Your task to perform on an android device: Search for hotels in Seattle Image 0: 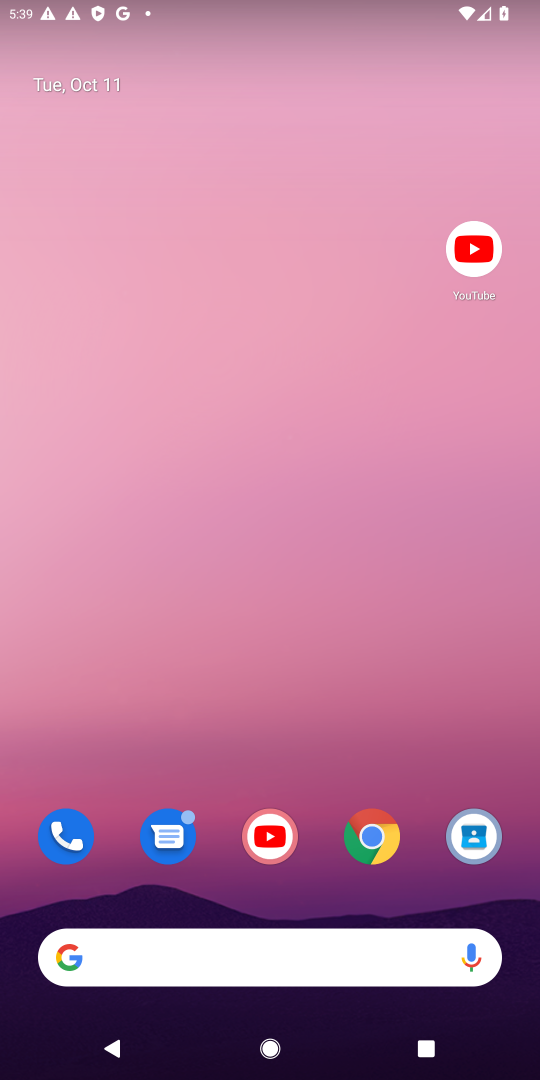
Step 0: click (366, 836)
Your task to perform on an android device: Search for hotels in Seattle Image 1: 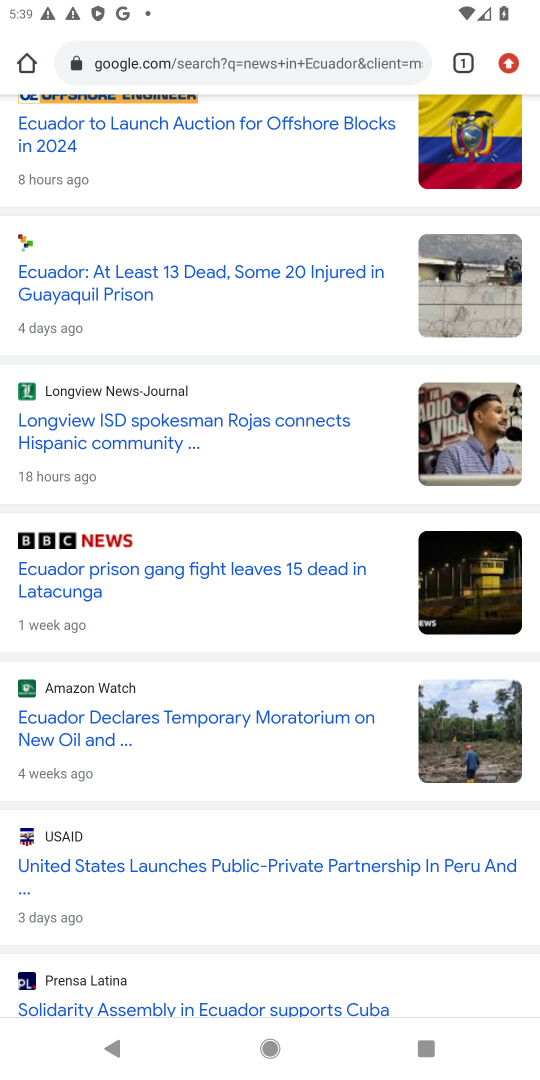
Step 1: click (171, 59)
Your task to perform on an android device: Search for hotels in Seattle Image 2: 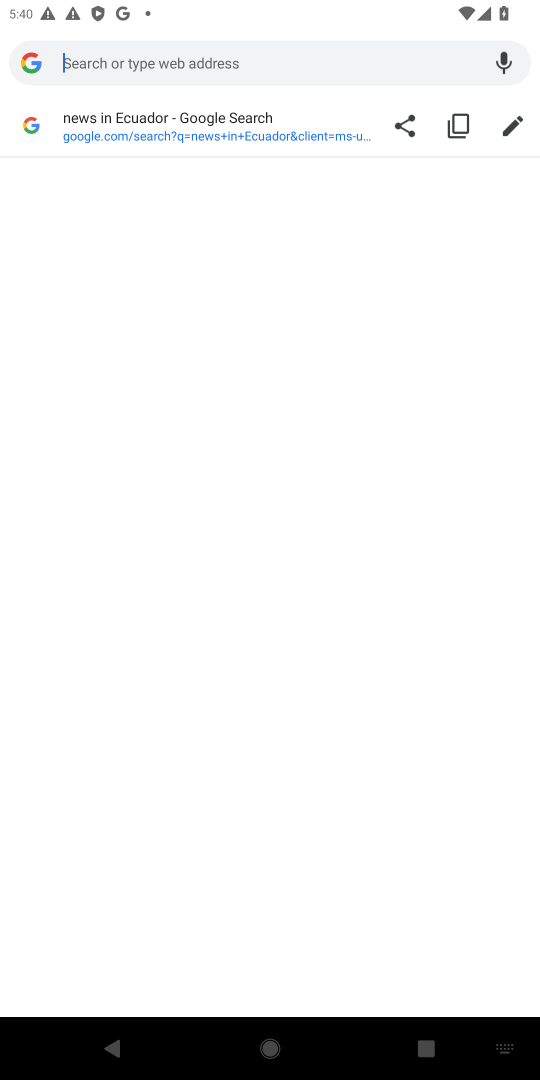
Step 2: type "hotels in Seattle"
Your task to perform on an android device: Search for hotels in Seattle Image 3: 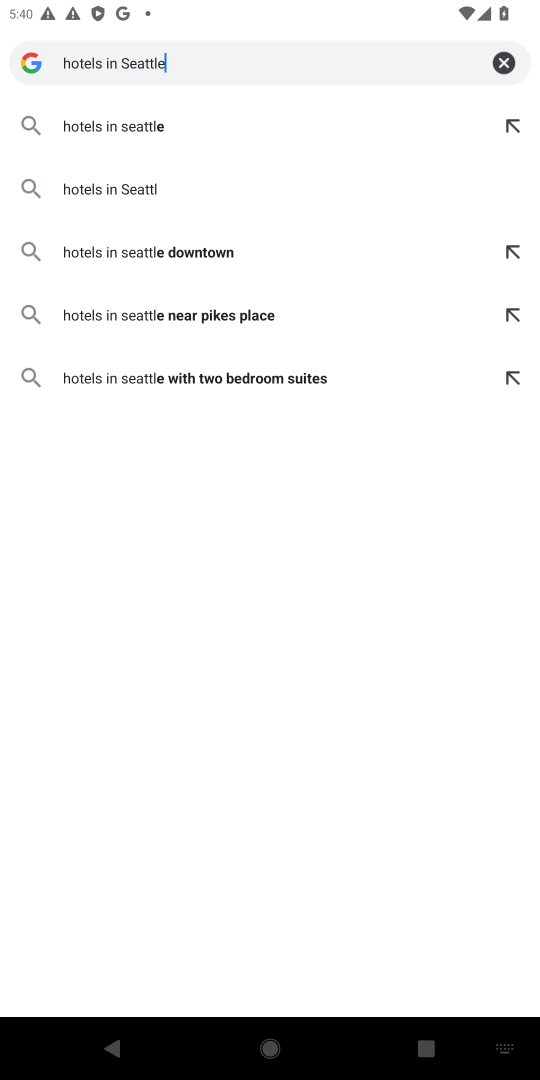
Step 3: press enter
Your task to perform on an android device: Search for hotels in Seattle Image 4: 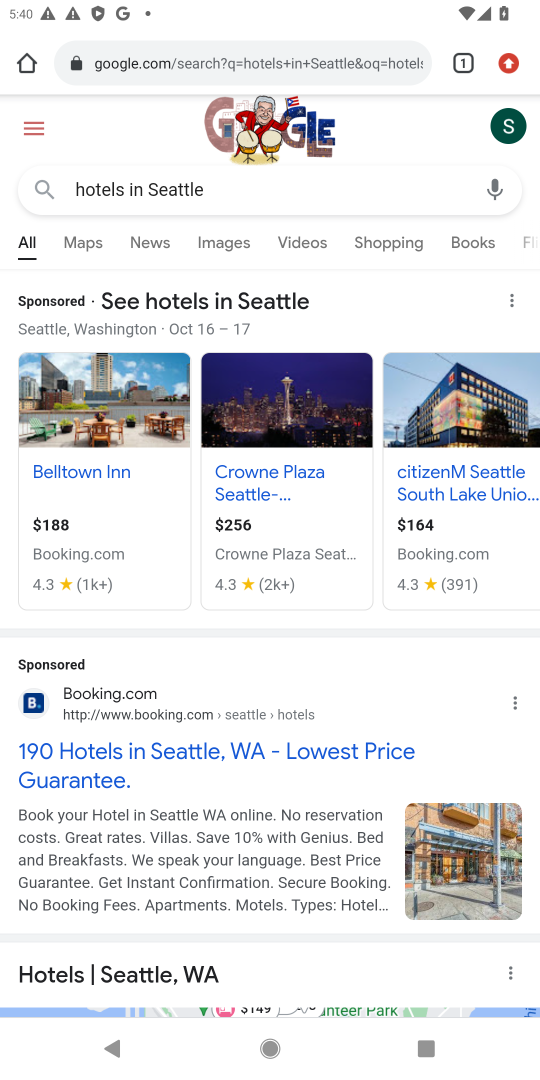
Step 4: drag from (239, 856) to (436, 175)
Your task to perform on an android device: Search for hotels in Seattle Image 5: 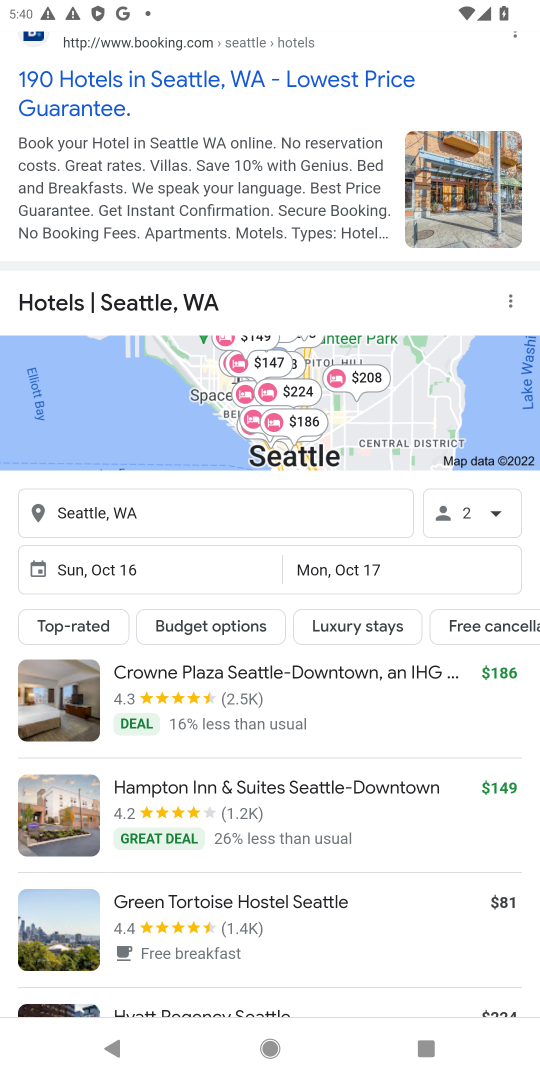
Step 5: drag from (263, 775) to (450, 415)
Your task to perform on an android device: Search for hotels in Seattle Image 6: 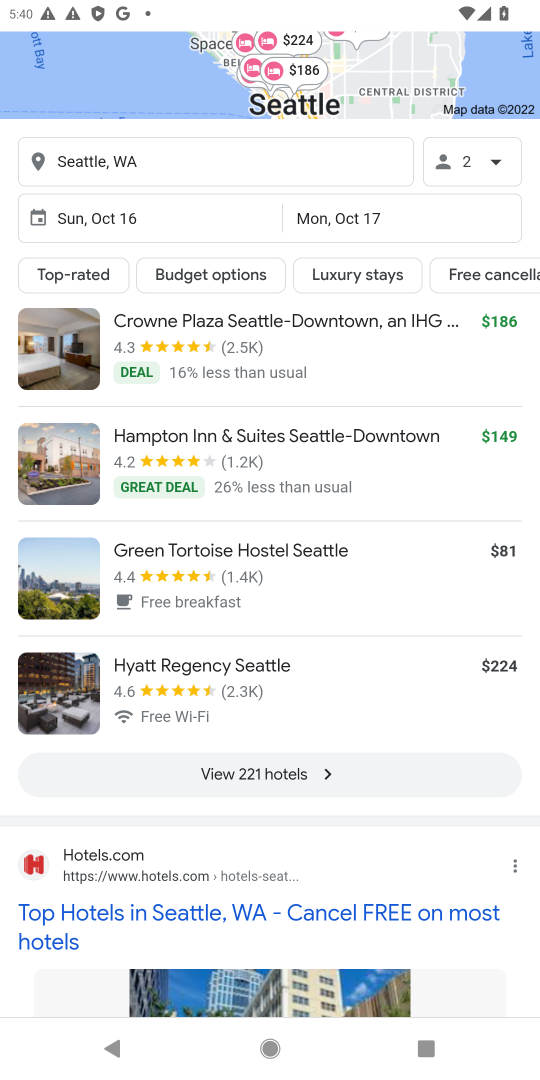
Step 6: click (283, 767)
Your task to perform on an android device: Search for hotels in Seattle Image 7: 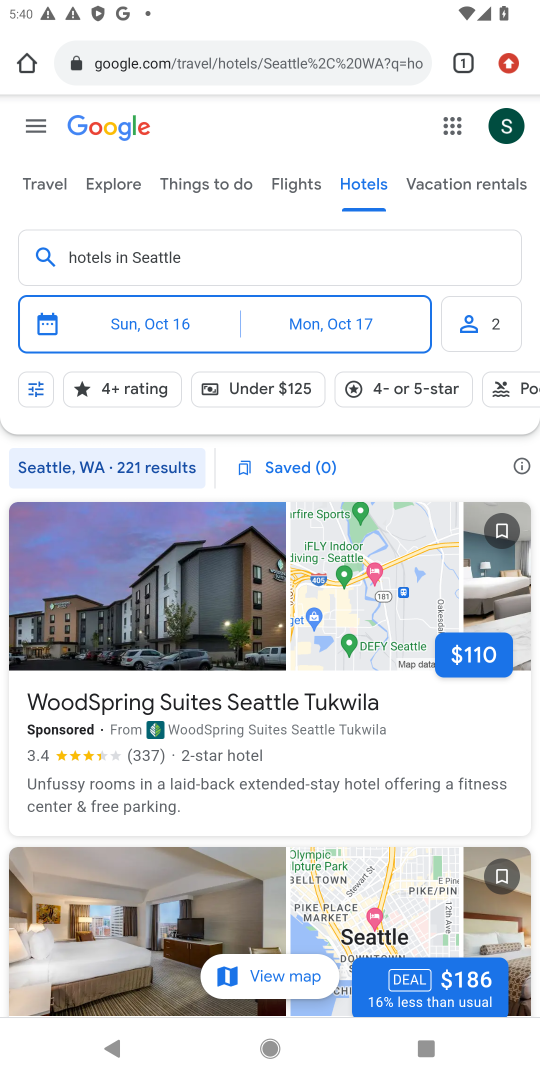
Step 7: task complete